Your task to perform on an android device: Open Yahoo.com Image 0: 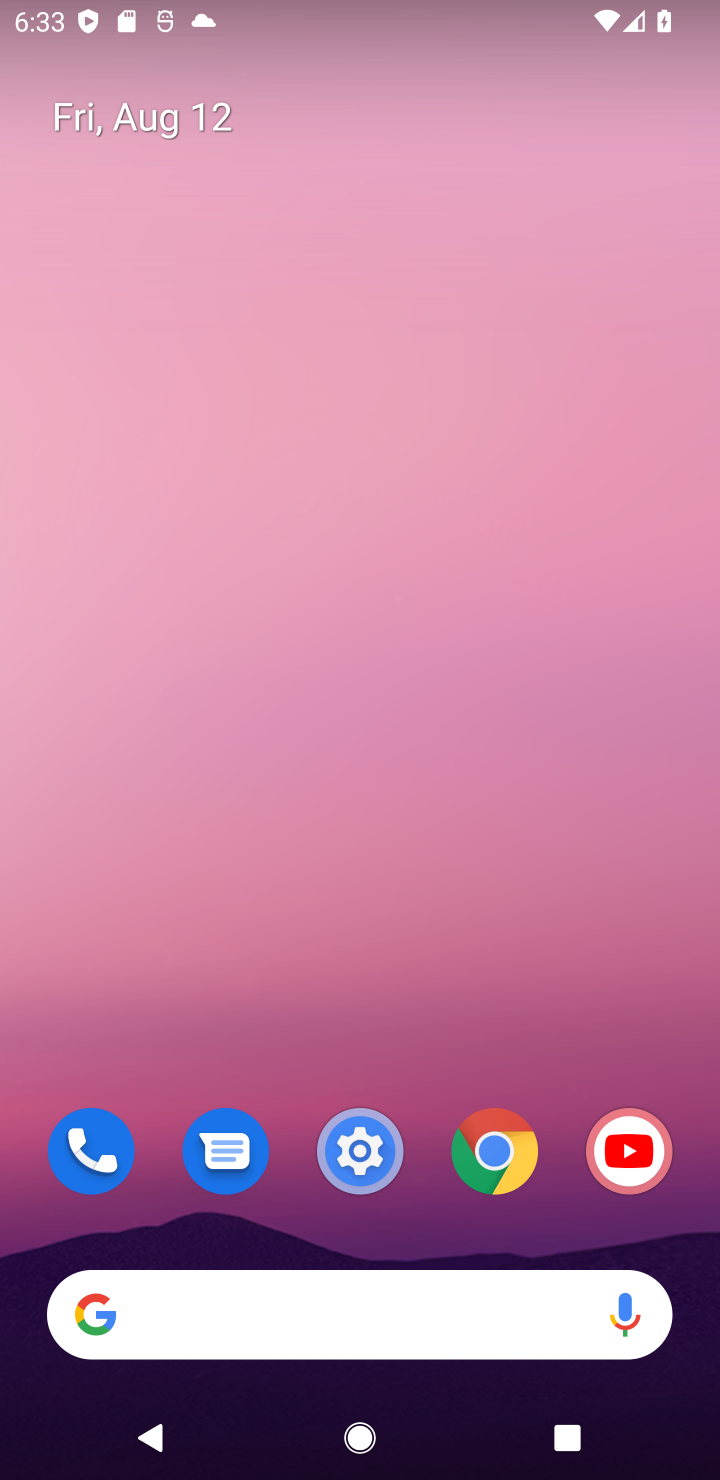
Step 0: drag from (315, 737) to (273, 3)
Your task to perform on an android device: Open Yahoo.com Image 1: 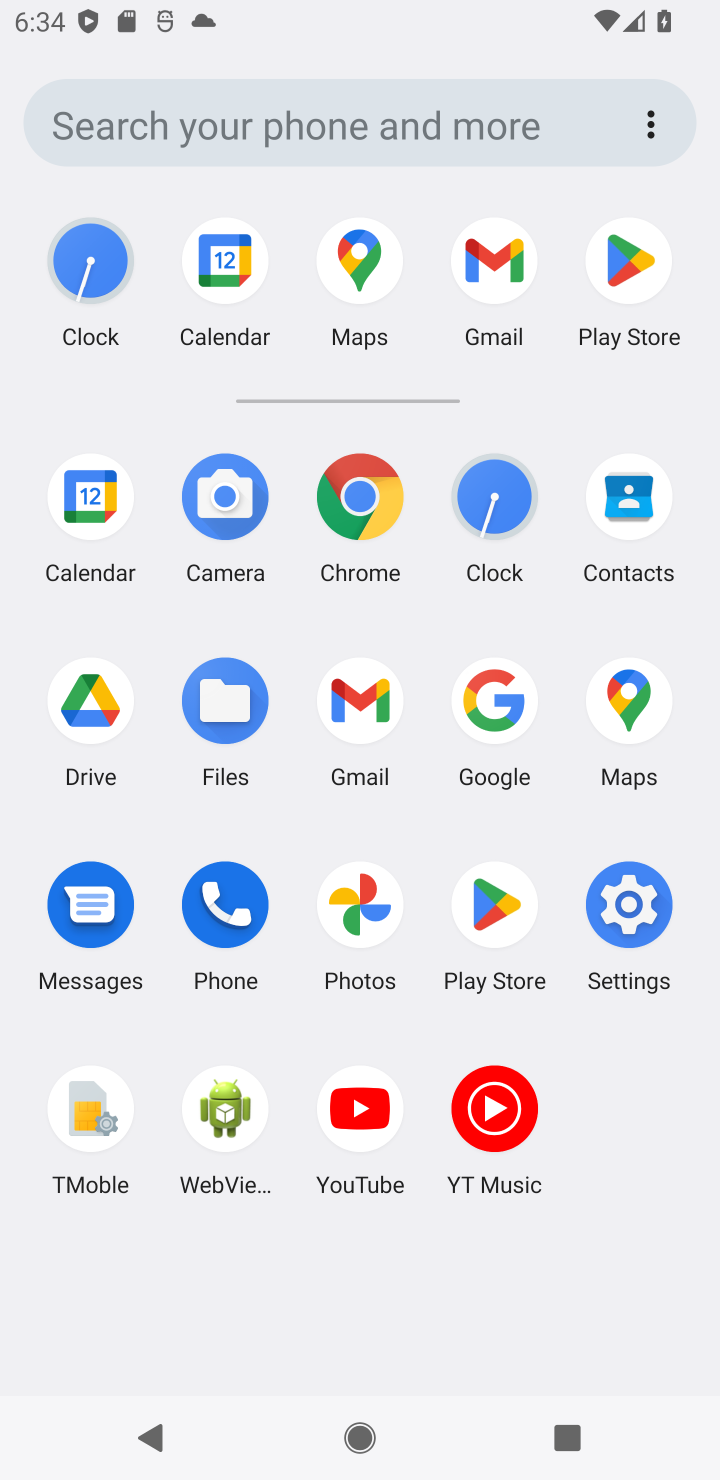
Step 1: click (371, 501)
Your task to perform on an android device: Open Yahoo.com Image 2: 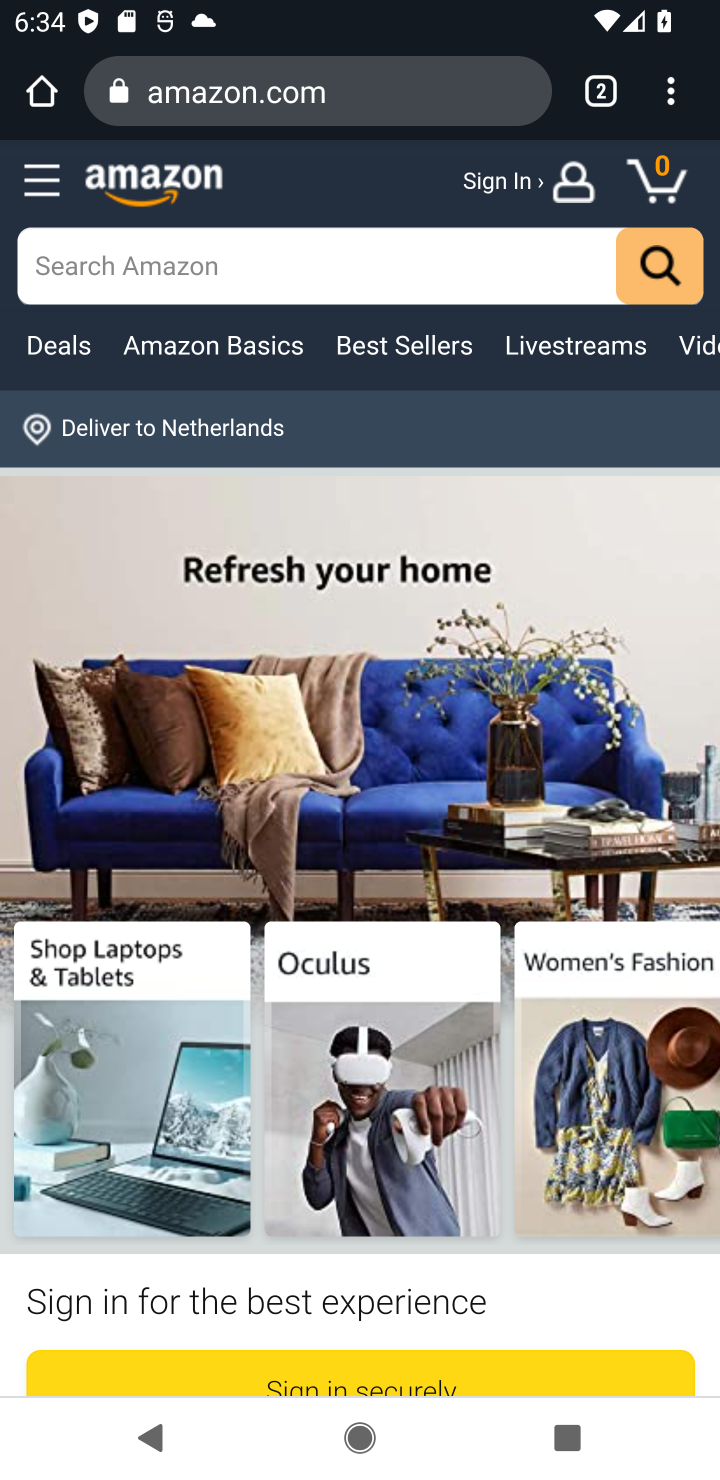
Step 2: click (302, 93)
Your task to perform on an android device: Open Yahoo.com Image 3: 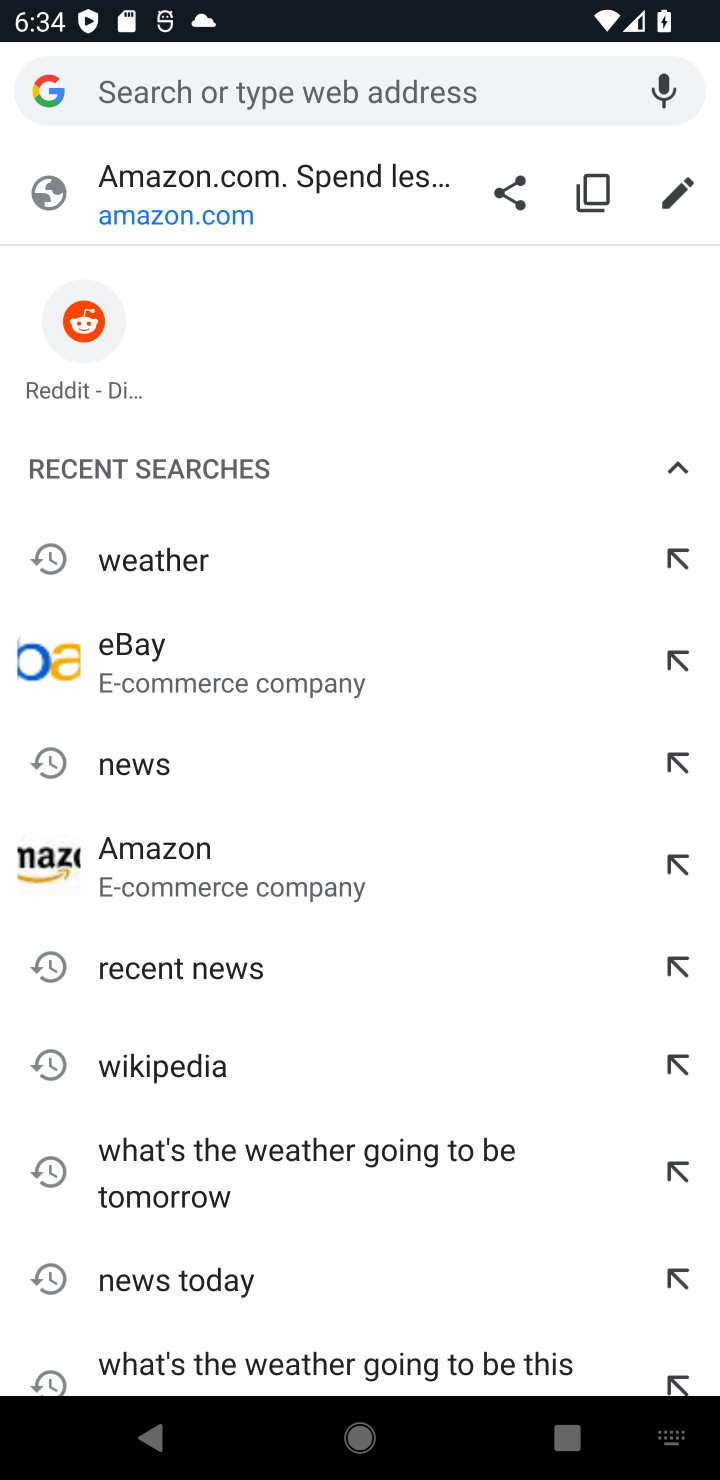
Step 3: type "yahoo.com"
Your task to perform on an android device: Open Yahoo.com Image 4: 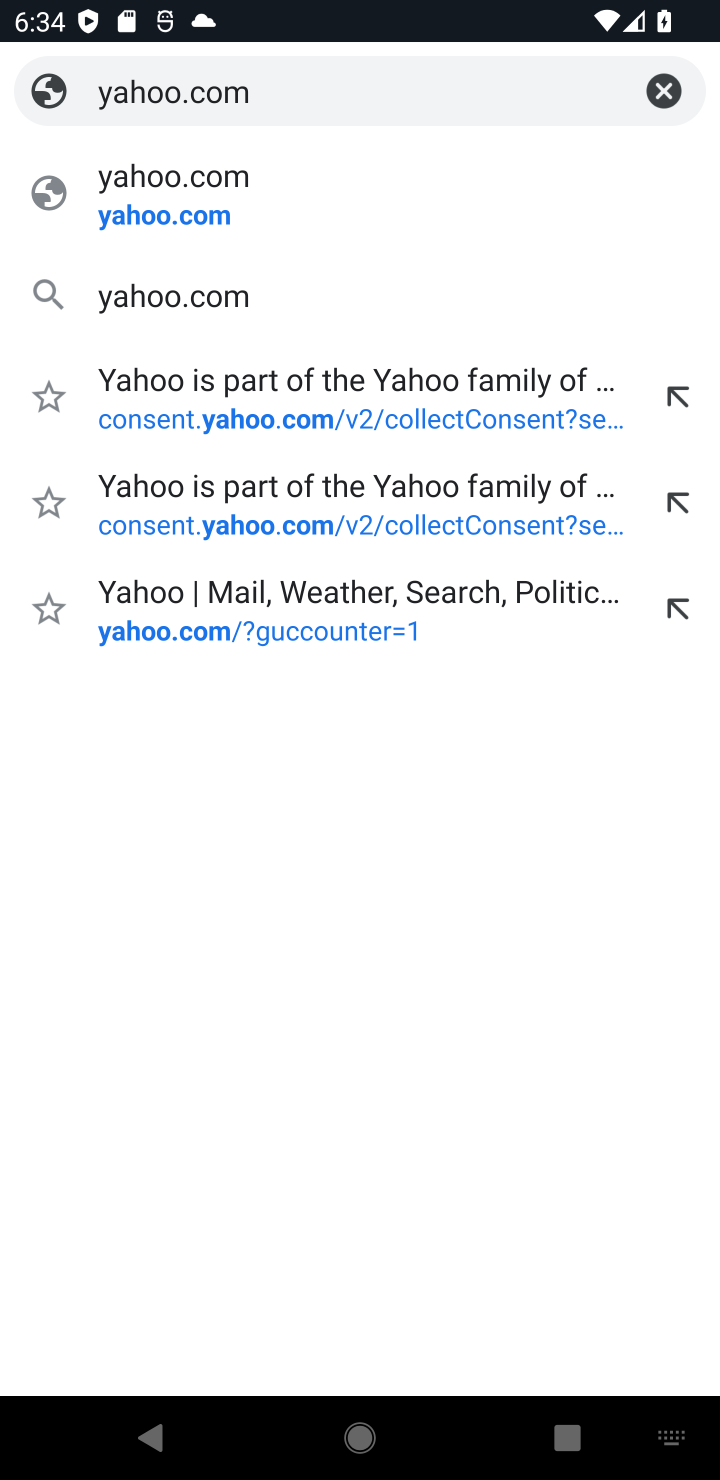
Step 4: click (209, 192)
Your task to perform on an android device: Open Yahoo.com Image 5: 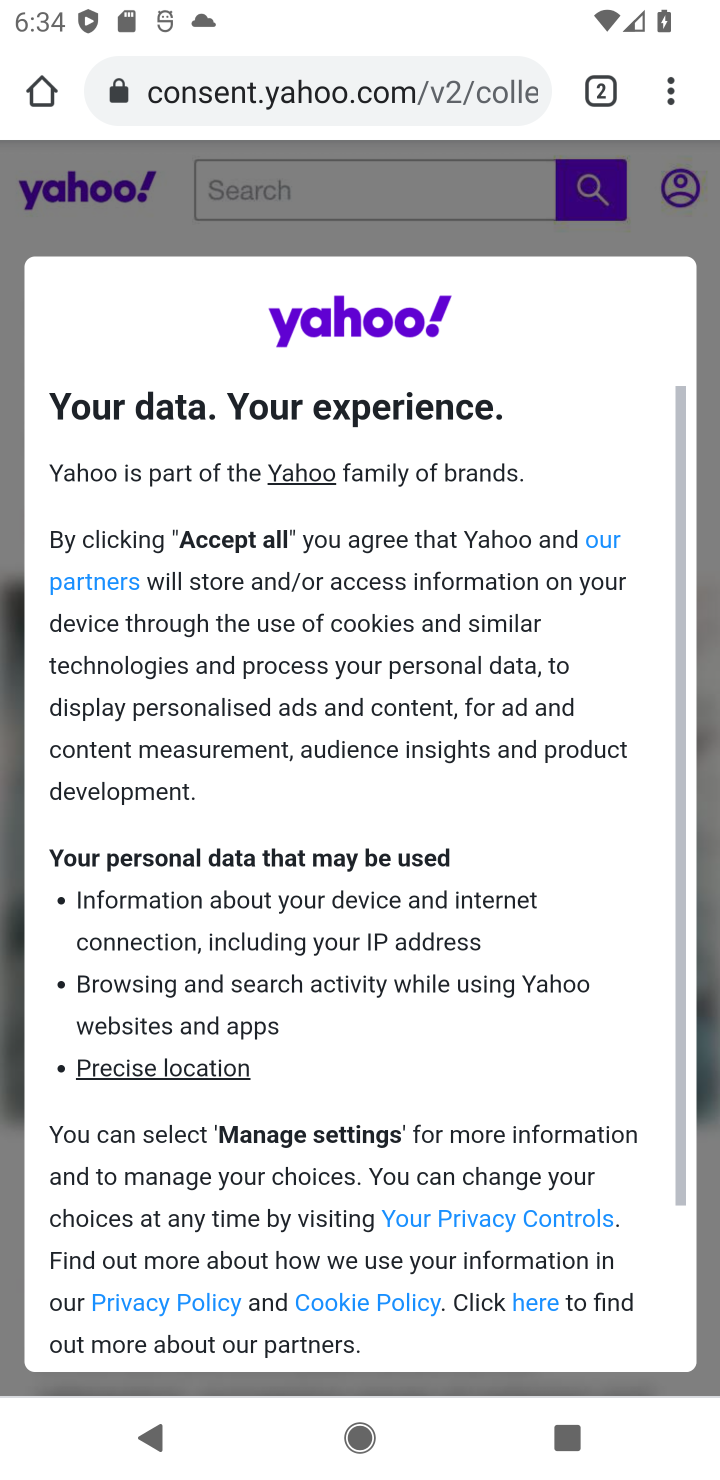
Step 5: task complete